Your task to perform on an android device: see tabs open on other devices in the chrome app Image 0: 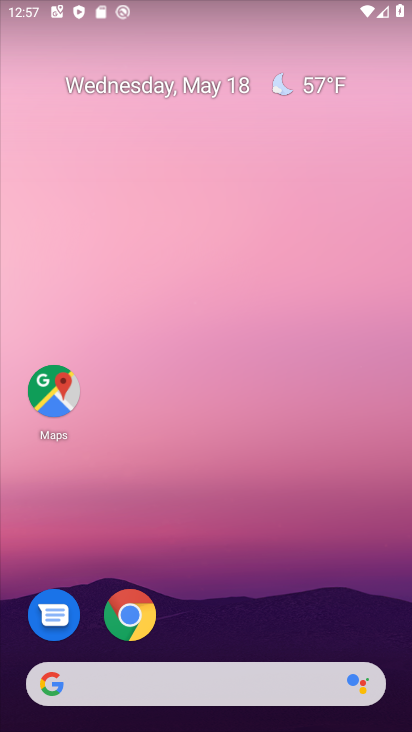
Step 0: drag from (364, 614) to (150, 20)
Your task to perform on an android device: see tabs open on other devices in the chrome app Image 1: 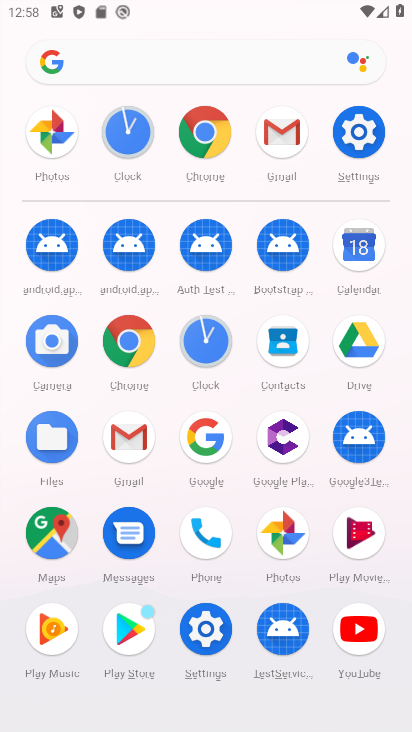
Step 1: click (118, 355)
Your task to perform on an android device: see tabs open on other devices in the chrome app Image 2: 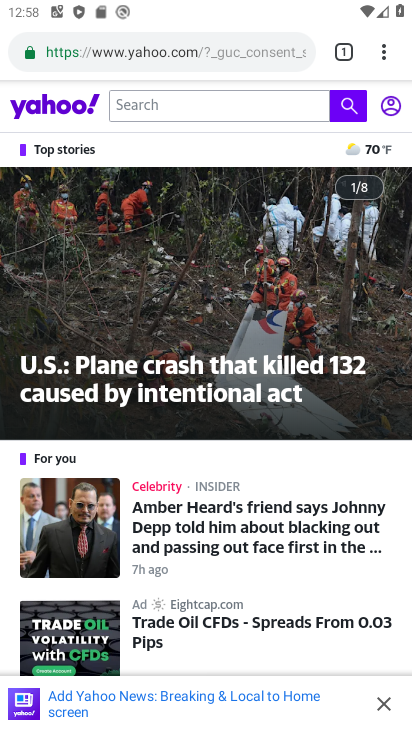
Step 2: task complete